Your task to perform on an android device: turn off translation in the chrome app Image 0: 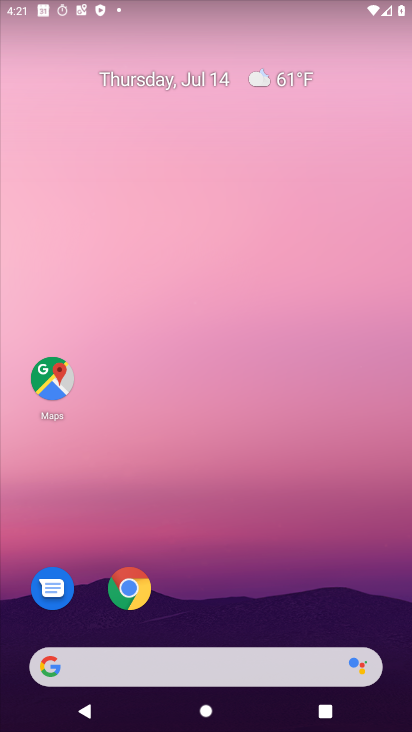
Step 0: click (130, 589)
Your task to perform on an android device: turn off translation in the chrome app Image 1: 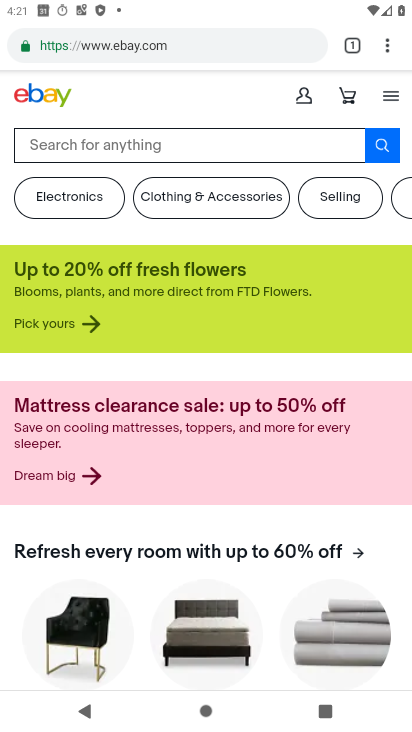
Step 1: click (385, 44)
Your task to perform on an android device: turn off translation in the chrome app Image 2: 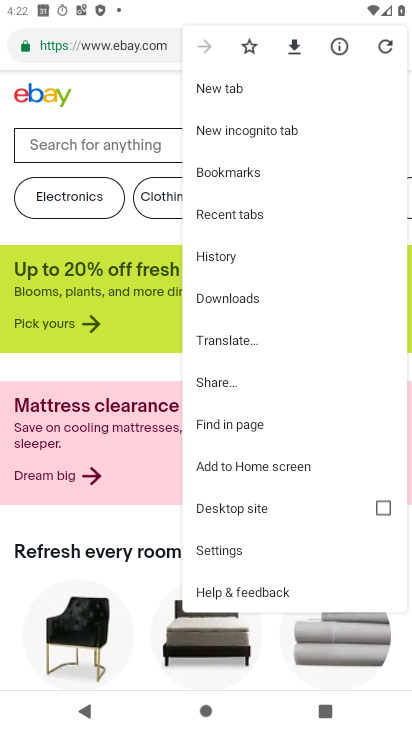
Step 2: click (221, 548)
Your task to perform on an android device: turn off translation in the chrome app Image 3: 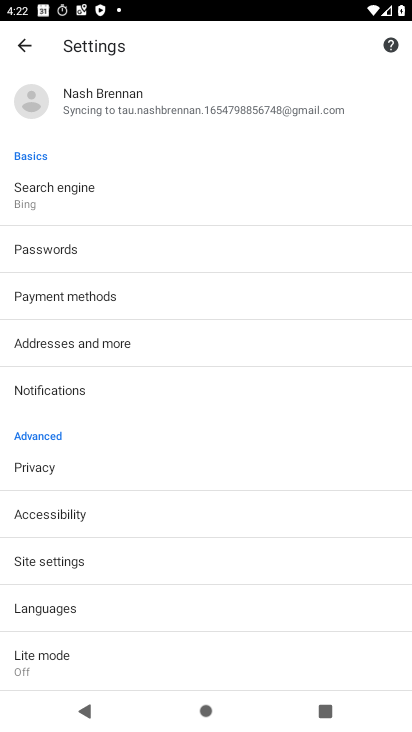
Step 3: click (46, 612)
Your task to perform on an android device: turn off translation in the chrome app Image 4: 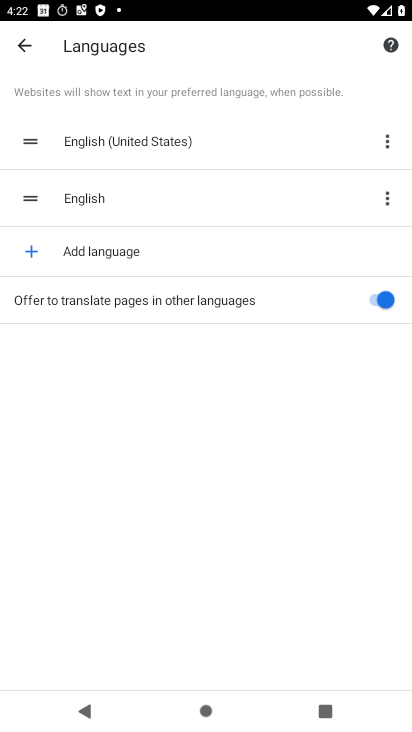
Step 4: click (377, 303)
Your task to perform on an android device: turn off translation in the chrome app Image 5: 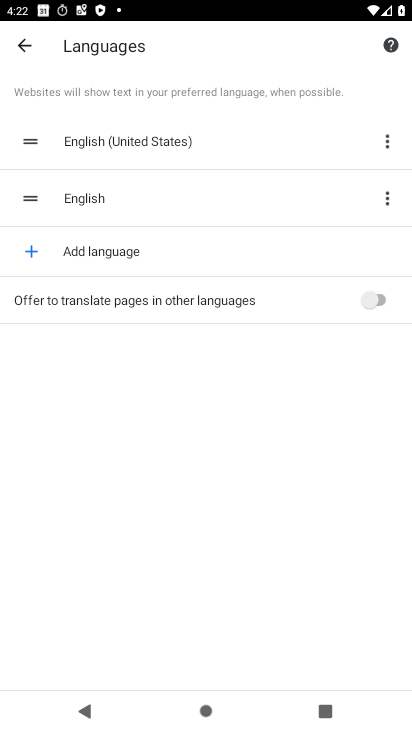
Step 5: task complete